Your task to perform on an android device: Open Chrome and go to the settings page Image 0: 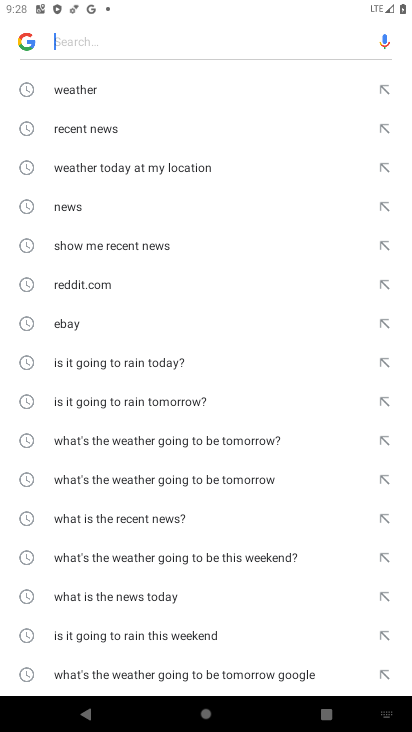
Step 0: press home button
Your task to perform on an android device: Open Chrome and go to the settings page Image 1: 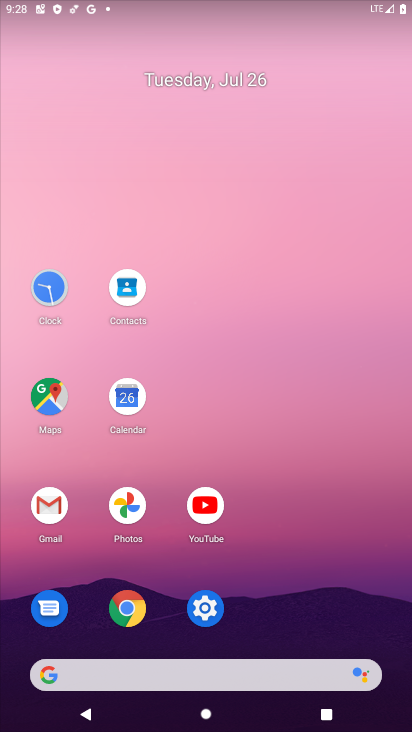
Step 1: click (124, 612)
Your task to perform on an android device: Open Chrome and go to the settings page Image 2: 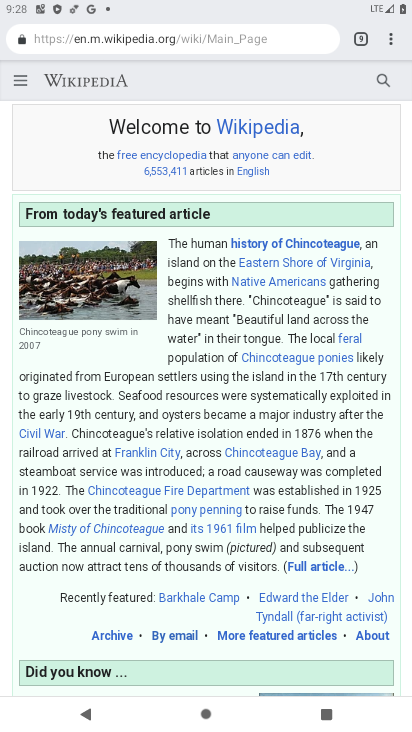
Step 2: click (388, 34)
Your task to perform on an android device: Open Chrome and go to the settings page Image 3: 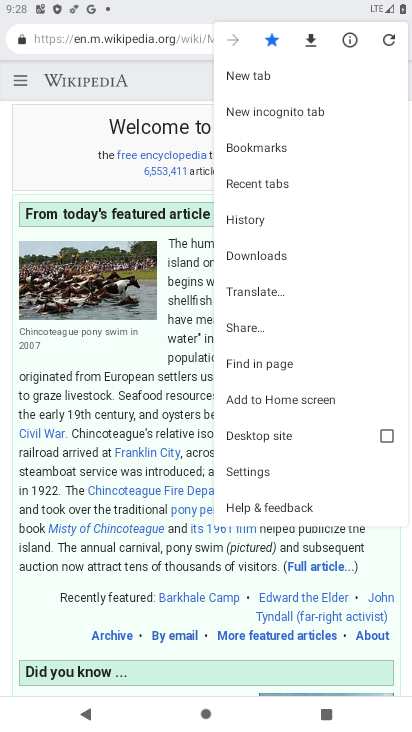
Step 3: click (258, 465)
Your task to perform on an android device: Open Chrome and go to the settings page Image 4: 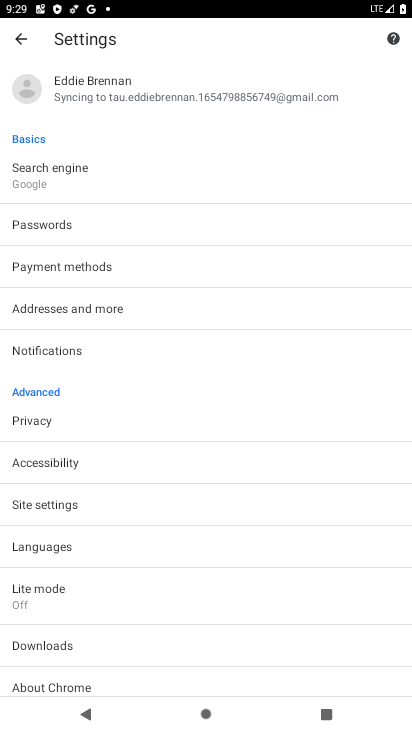
Step 4: task complete